Your task to perform on an android device: toggle wifi Image 0: 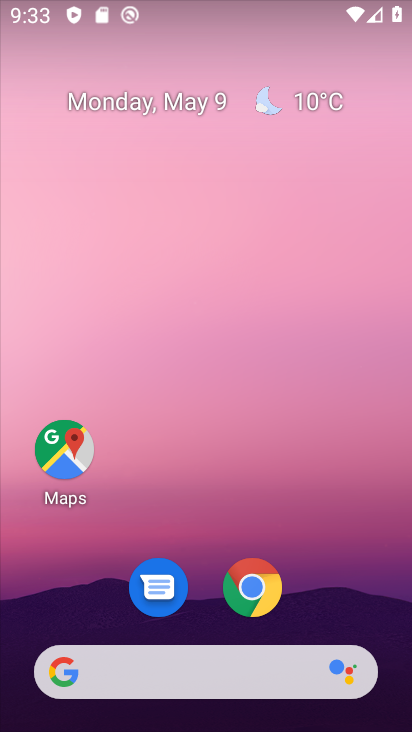
Step 0: drag from (332, 8) to (315, 345)
Your task to perform on an android device: toggle wifi Image 1: 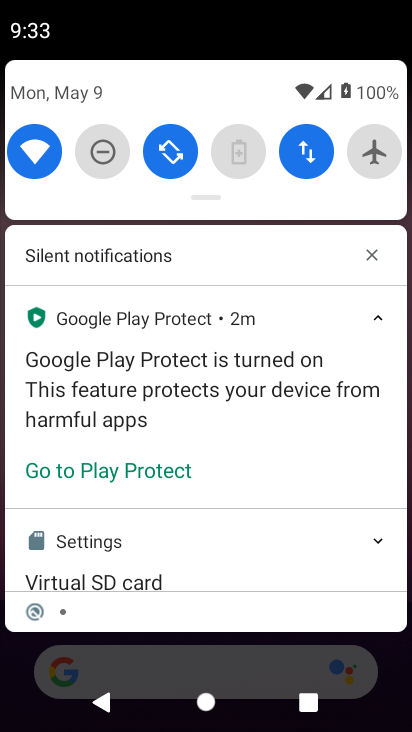
Step 1: click (40, 165)
Your task to perform on an android device: toggle wifi Image 2: 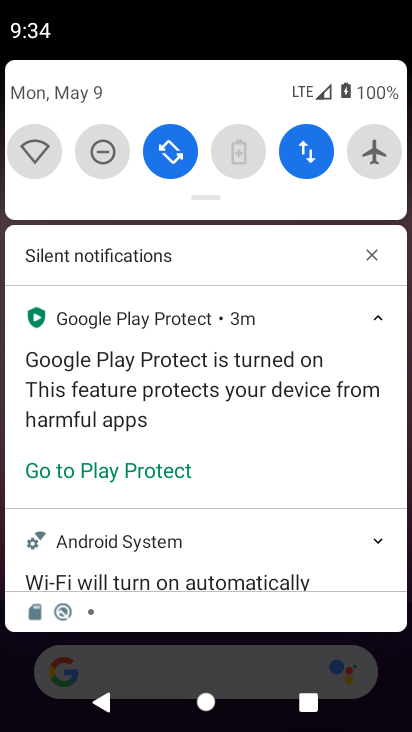
Step 2: task complete